Your task to perform on an android device: Open my contact list Image 0: 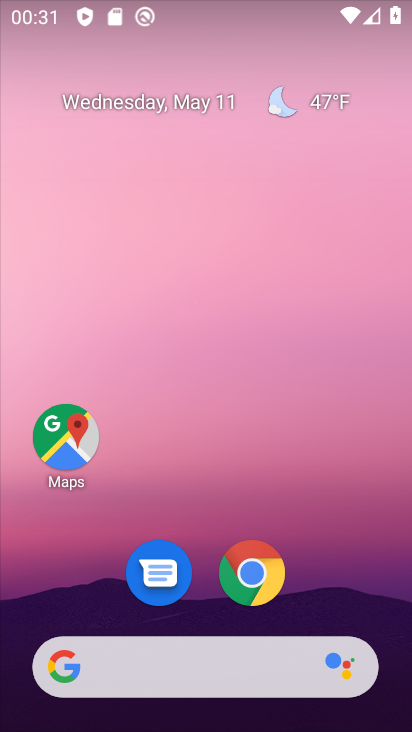
Step 0: press home button
Your task to perform on an android device: Open my contact list Image 1: 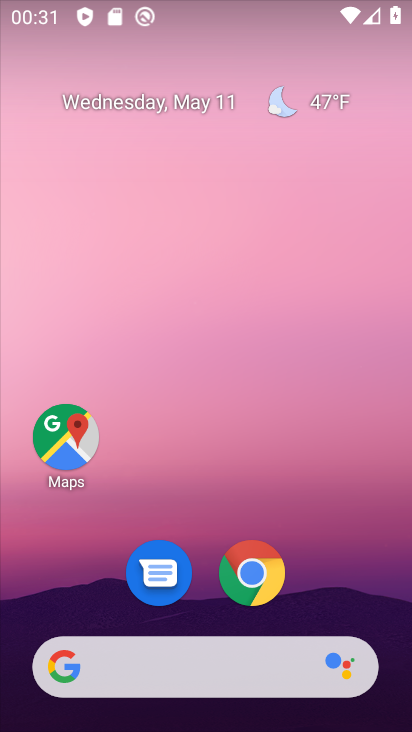
Step 1: press home button
Your task to perform on an android device: Open my contact list Image 2: 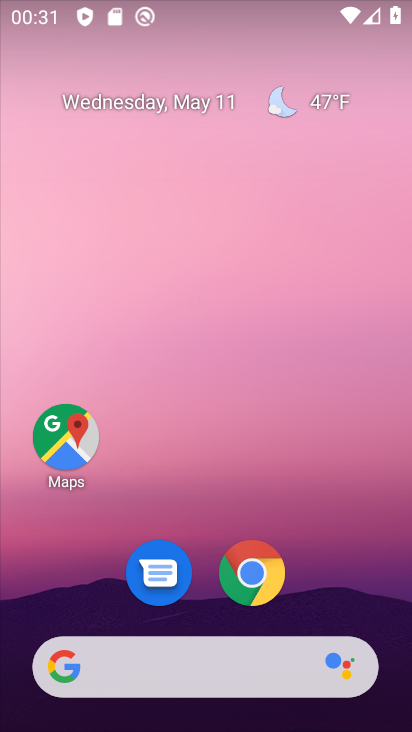
Step 2: drag from (351, 611) to (385, 71)
Your task to perform on an android device: Open my contact list Image 3: 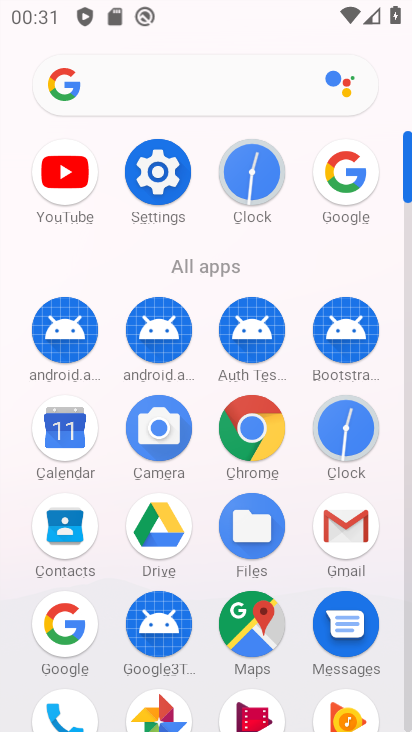
Step 3: click (403, 727)
Your task to perform on an android device: Open my contact list Image 4: 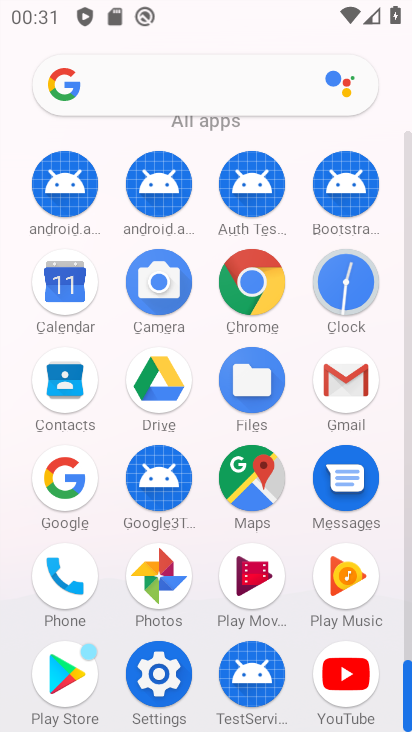
Step 4: click (62, 367)
Your task to perform on an android device: Open my contact list Image 5: 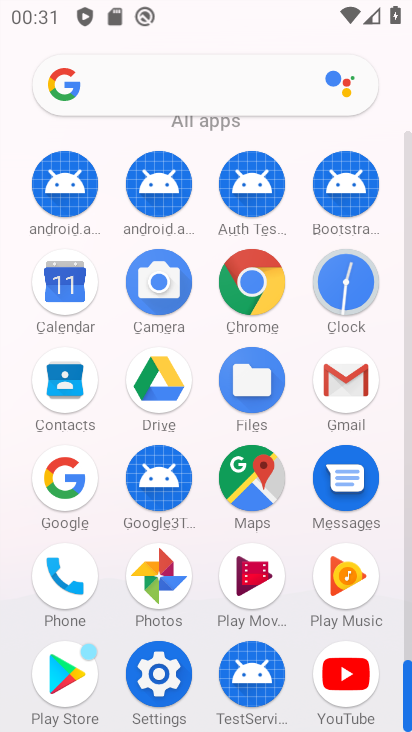
Step 5: click (62, 367)
Your task to perform on an android device: Open my contact list Image 6: 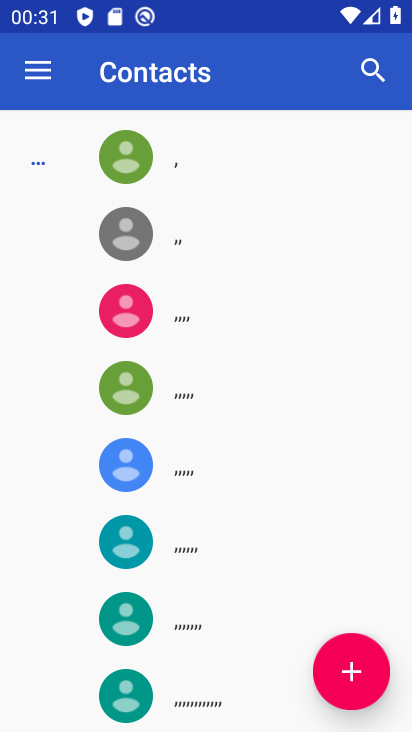
Step 6: task complete